Your task to perform on an android device: visit the assistant section in the google photos Image 0: 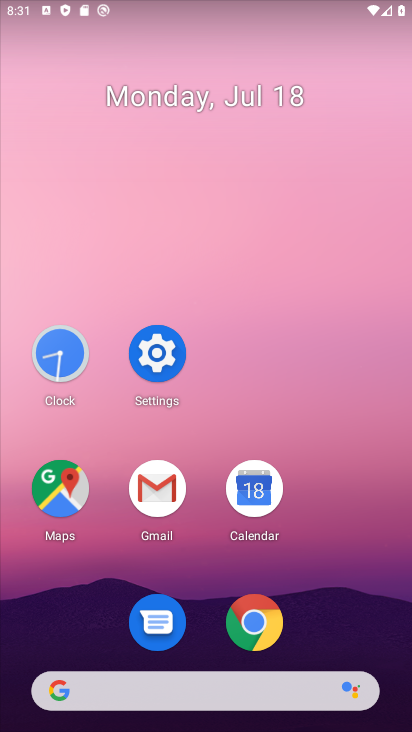
Step 0: drag from (399, 703) to (406, 67)
Your task to perform on an android device: visit the assistant section in the google photos Image 1: 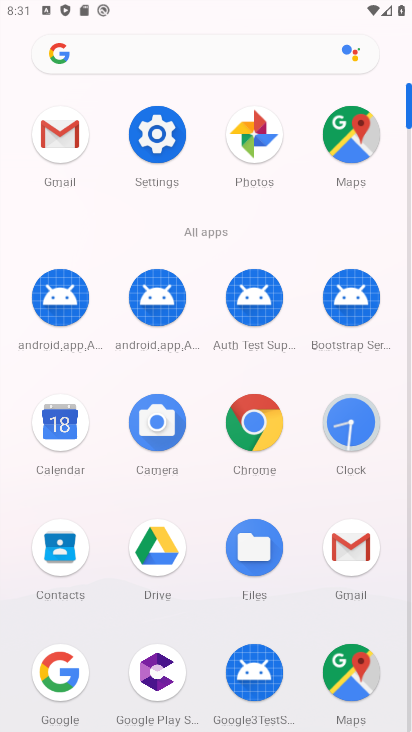
Step 1: click (251, 139)
Your task to perform on an android device: visit the assistant section in the google photos Image 2: 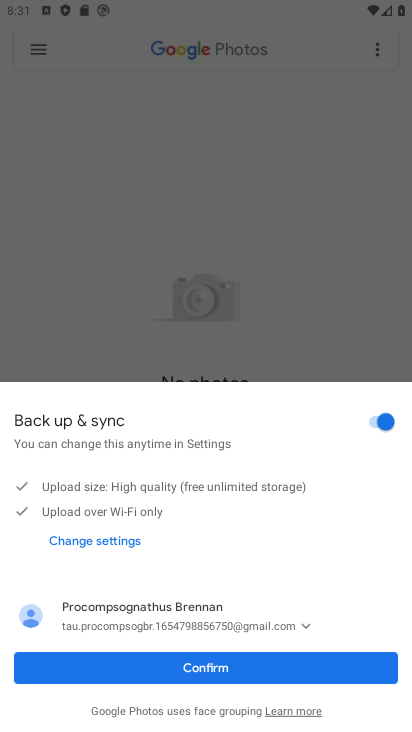
Step 2: click (184, 659)
Your task to perform on an android device: visit the assistant section in the google photos Image 3: 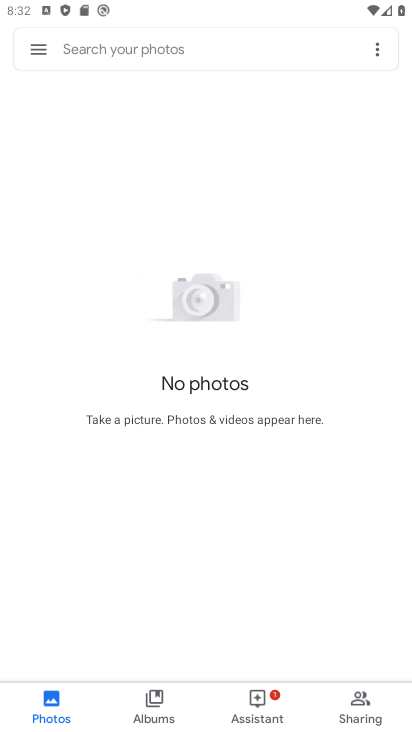
Step 3: click (255, 698)
Your task to perform on an android device: visit the assistant section in the google photos Image 4: 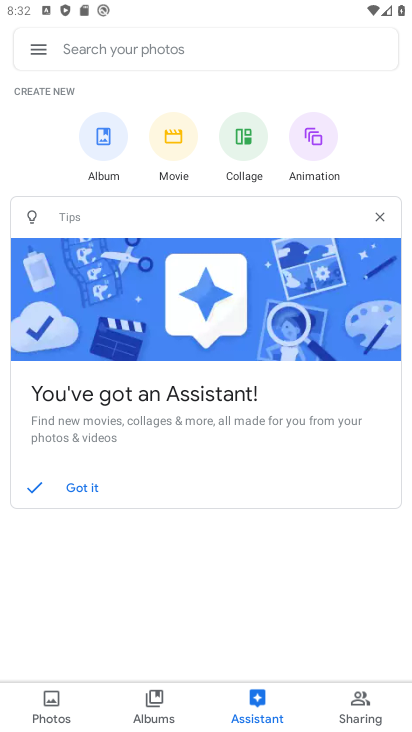
Step 4: task complete